Your task to perform on an android device: Open wifi settings Image 0: 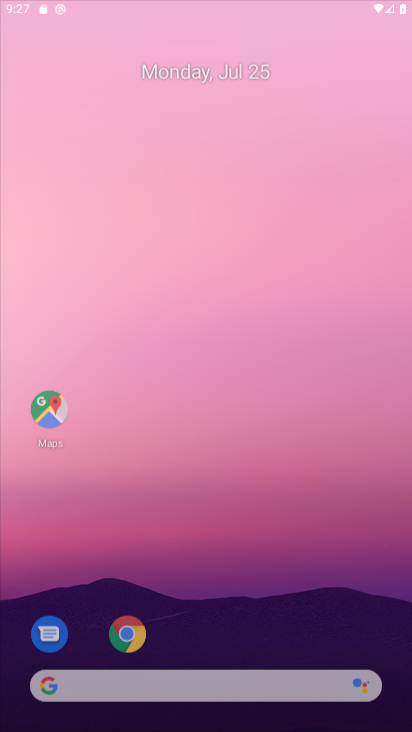
Step 0: click (27, 448)
Your task to perform on an android device: Open wifi settings Image 1: 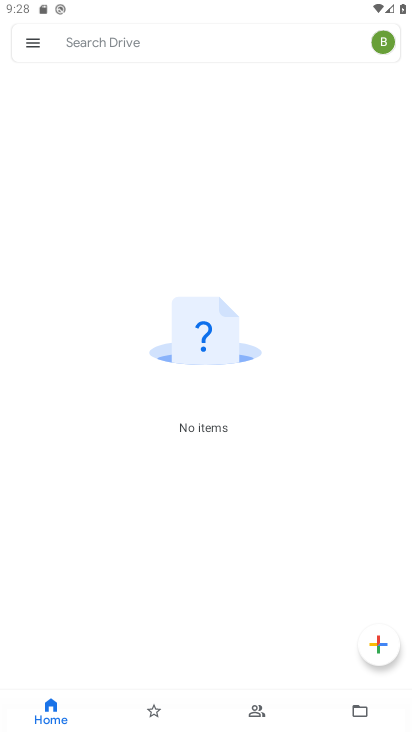
Step 1: press home button
Your task to perform on an android device: Open wifi settings Image 2: 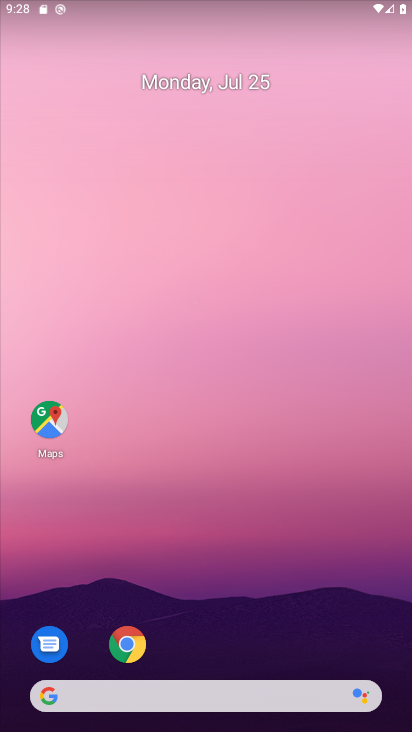
Step 2: drag from (401, 678) to (334, 86)
Your task to perform on an android device: Open wifi settings Image 3: 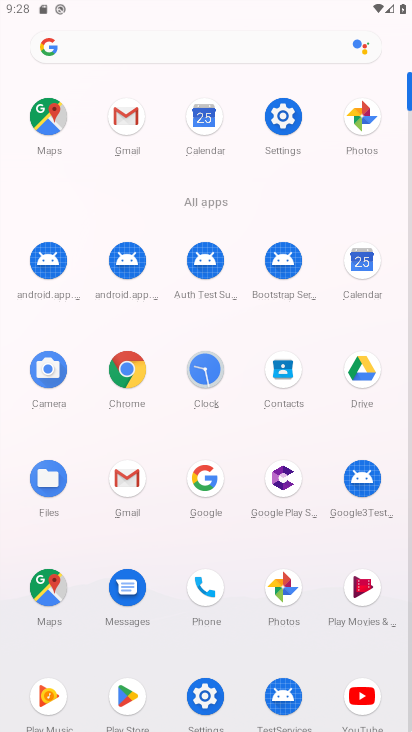
Step 3: click (288, 122)
Your task to perform on an android device: Open wifi settings Image 4: 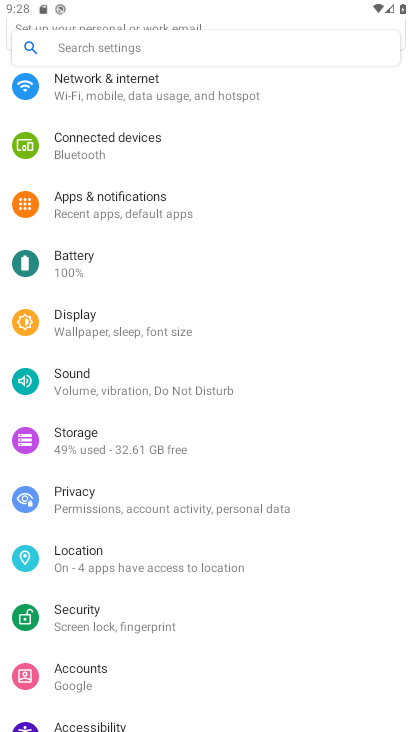
Step 4: click (103, 90)
Your task to perform on an android device: Open wifi settings Image 5: 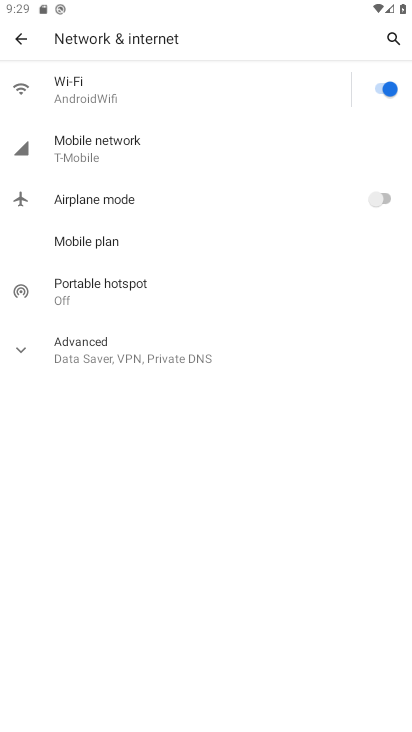
Step 5: click (124, 93)
Your task to perform on an android device: Open wifi settings Image 6: 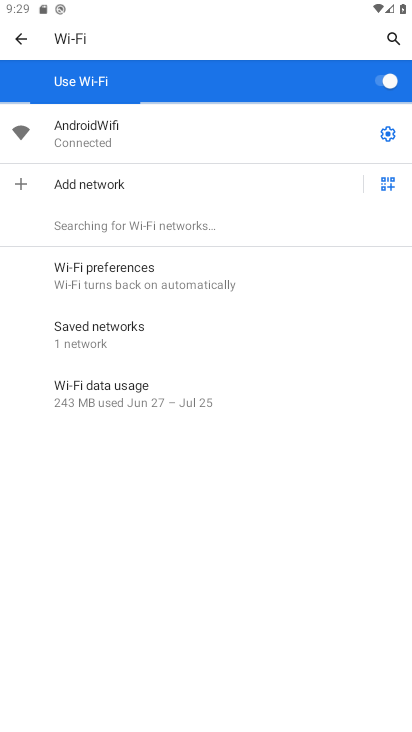
Step 6: click (386, 131)
Your task to perform on an android device: Open wifi settings Image 7: 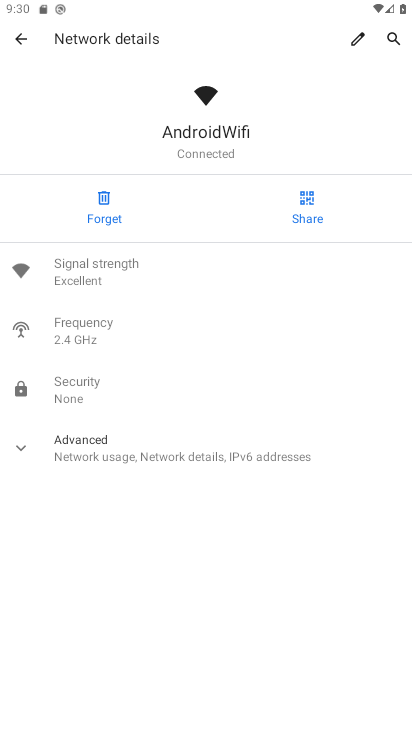
Step 7: task complete